Your task to perform on an android device: Open the phone app and click the voicemail tab. Image 0: 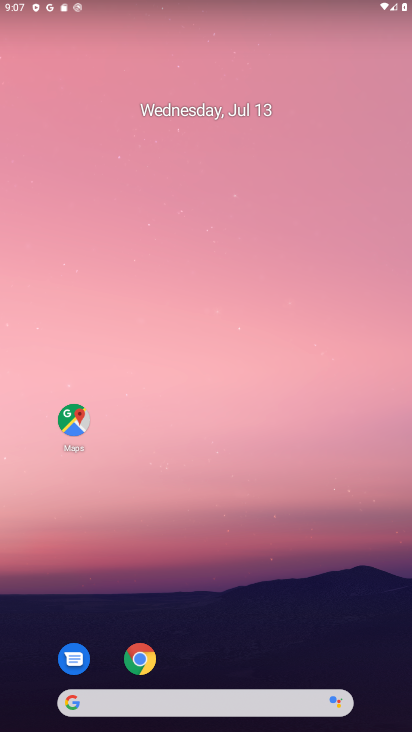
Step 0: drag from (193, 652) to (222, 229)
Your task to perform on an android device: Open the phone app and click the voicemail tab. Image 1: 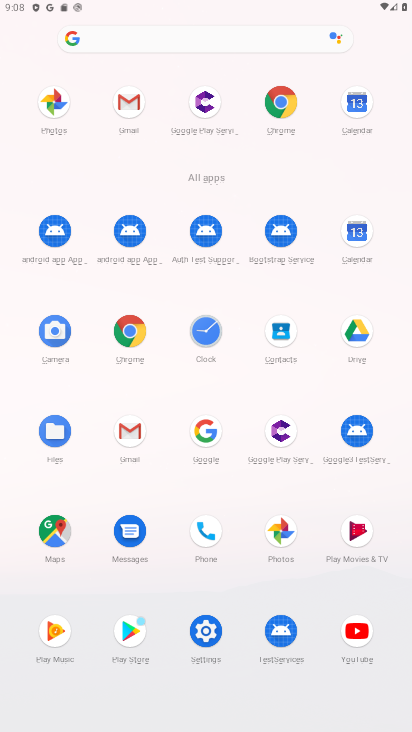
Step 1: click (202, 524)
Your task to perform on an android device: Open the phone app and click the voicemail tab. Image 2: 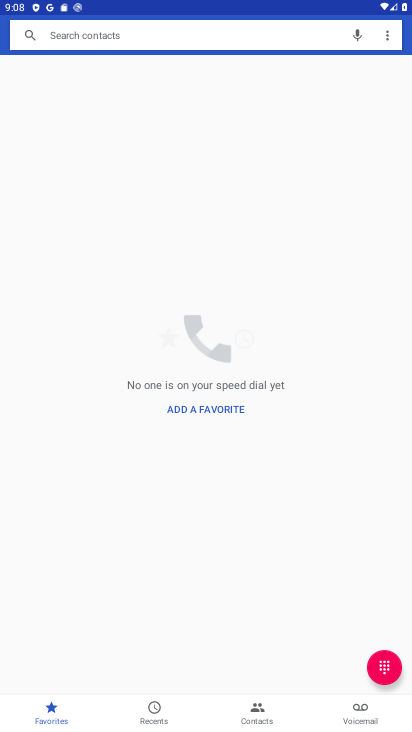
Step 2: click (355, 714)
Your task to perform on an android device: Open the phone app and click the voicemail tab. Image 3: 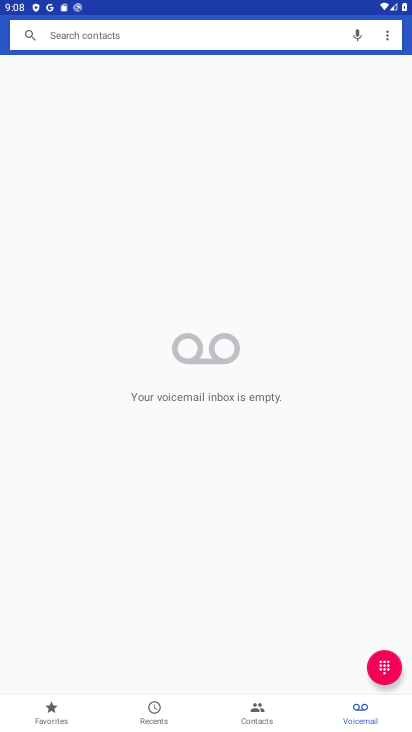
Step 3: task complete